Your task to perform on an android device: change notification settings in the gmail app Image 0: 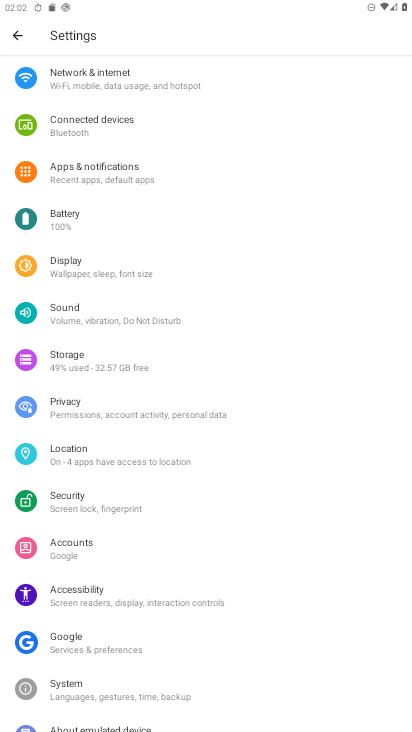
Step 0: click (105, 169)
Your task to perform on an android device: change notification settings in the gmail app Image 1: 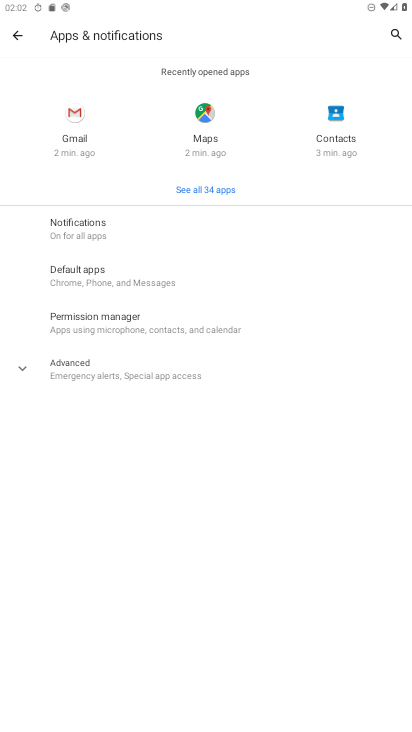
Step 1: task complete